Your task to perform on an android device: What is the recent news? Image 0: 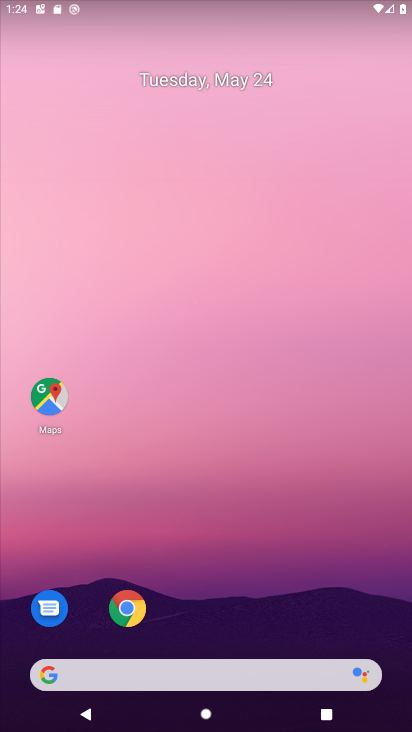
Step 0: drag from (299, 616) to (196, 86)
Your task to perform on an android device: What is the recent news? Image 1: 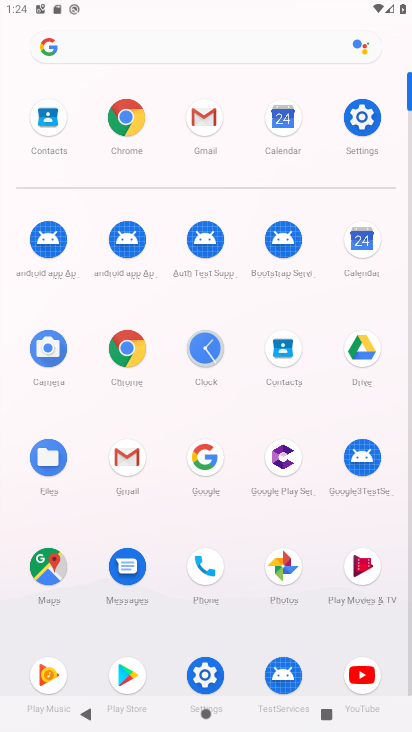
Step 1: click (186, 47)
Your task to perform on an android device: What is the recent news? Image 2: 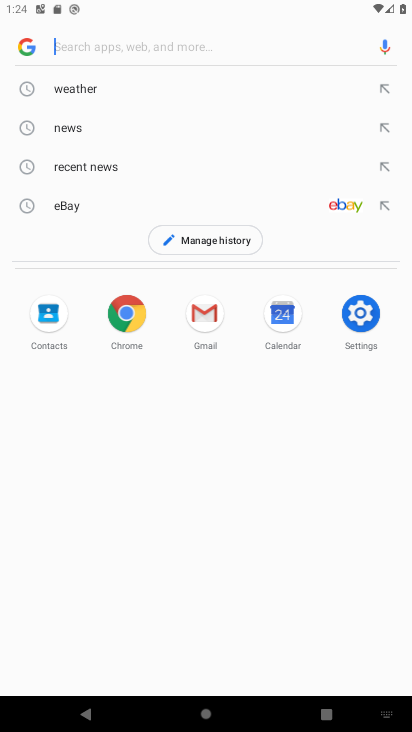
Step 2: click (140, 127)
Your task to perform on an android device: What is the recent news? Image 3: 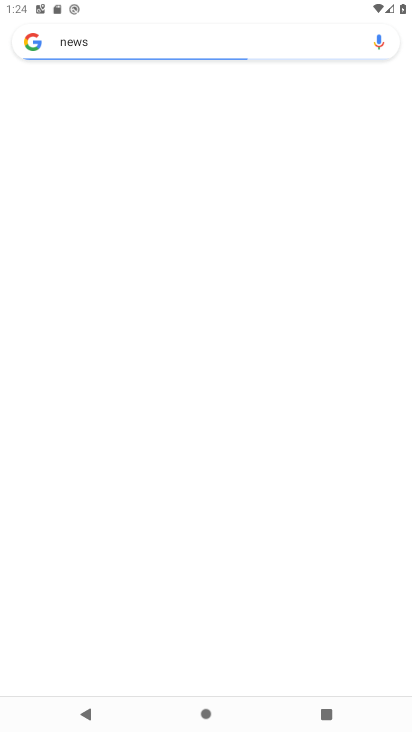
Step 3: task complete